Your task to perform on an android device: turn off location history Image 0: 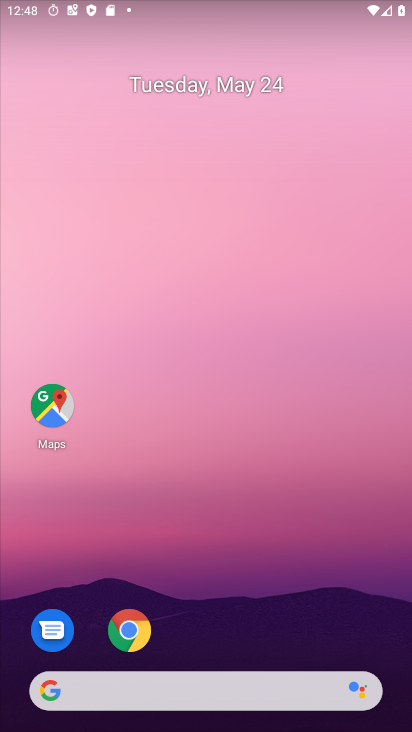
Step 0: click (53, 405)
Your task to perform on an android device: turn off location history Image 1: 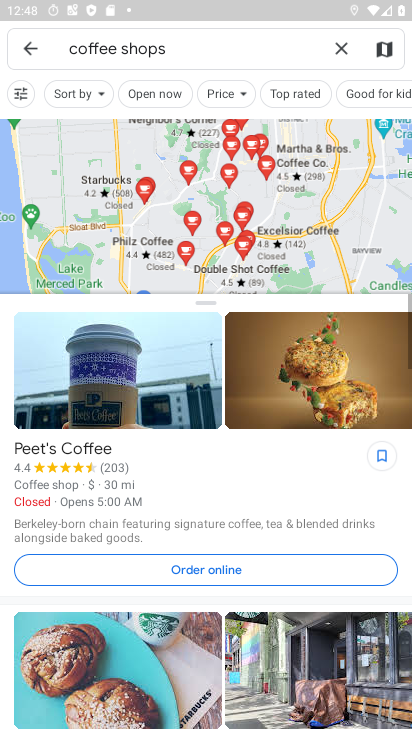
Step 1: click (343, 51)
Your task to perform on an android device: turn off location history Image 2: 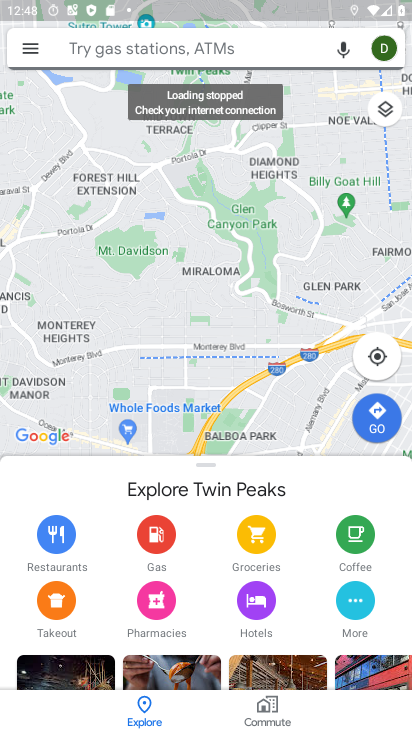
Step 2: click (29, 51)
Your task to perform on an android device: turn off location history Image 3: 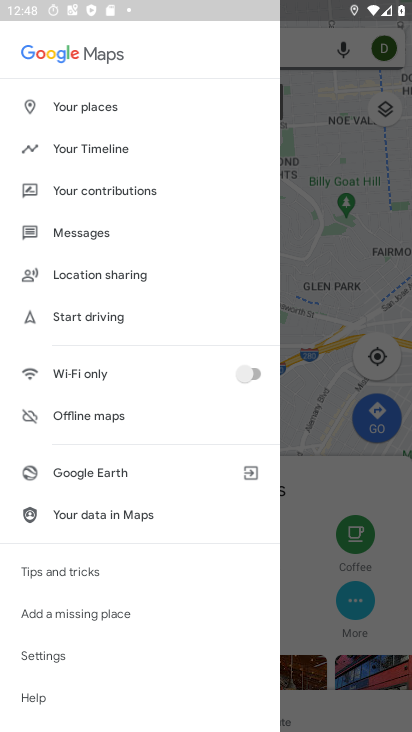
Step 3: click (99, 156)
Your task to perform on an android device: turn off location history Image 4: 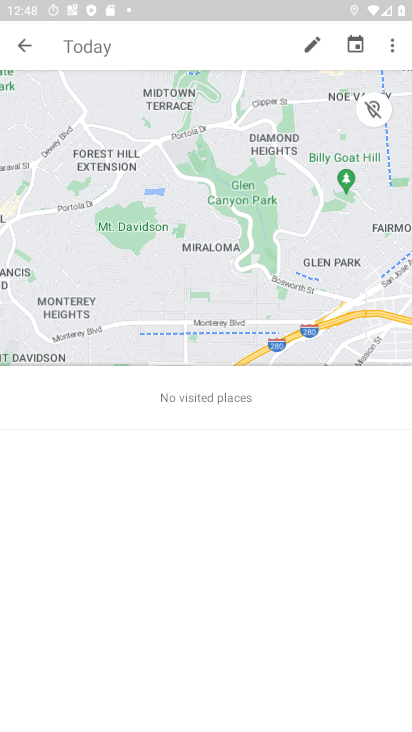
Step 4: click (394, 50)
Your task to perform on an android device: turn off location history Image 5: 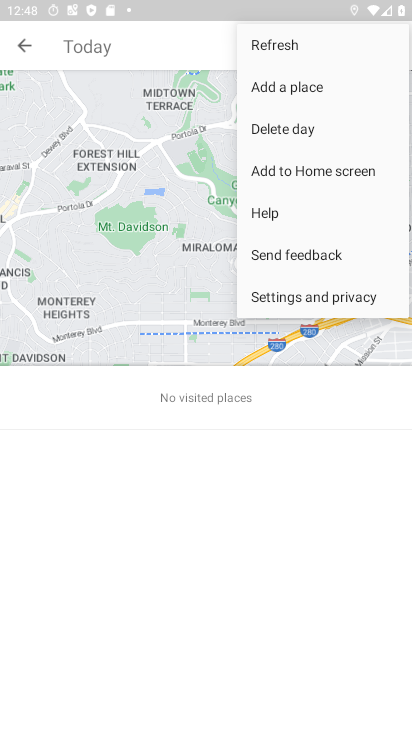
Step 5: click (312, 293)
Your task to perform on an android device: turn off location history Image 6: 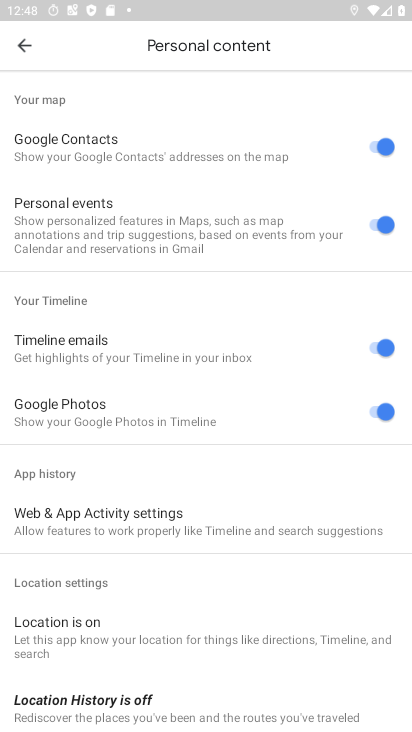
Step 6: drag from (155, 635) to (177, 339)
Your task to perform on an android device: turn off location history Image 7: 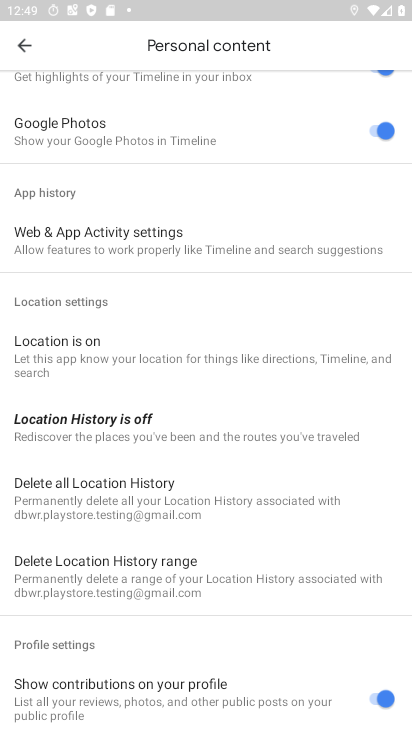
Step 7: click (138, 423)
Your task to perform on an android device: turn off location history Image 8: 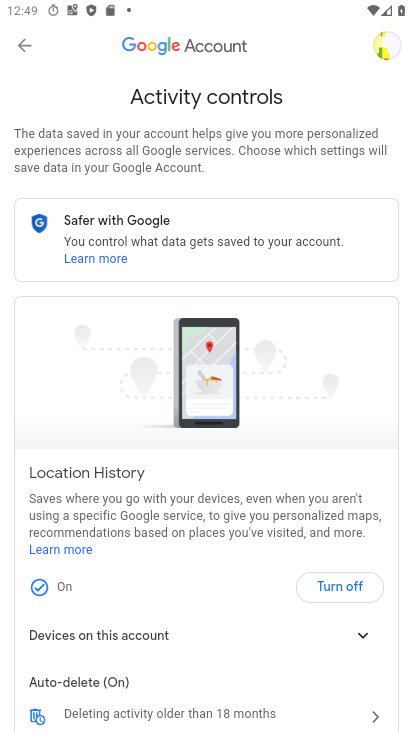
Step 8: click (326, 588)
Your task to perform on an android device: turn off location history Image 9: 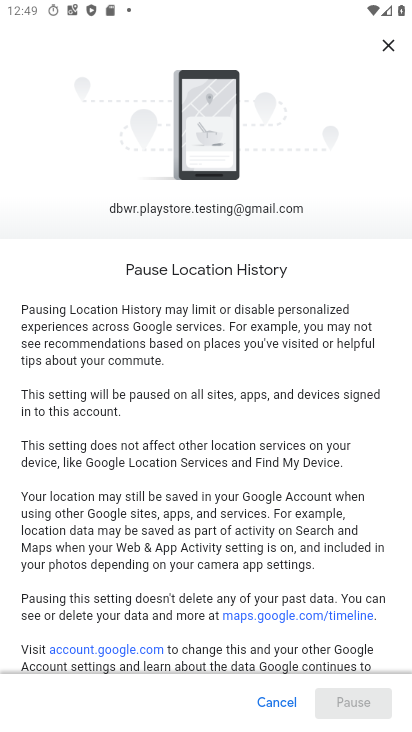
Step 9: drag from (194, 601) to (216, 22)
Your task to perform on an android device: turn off location history Image 10: 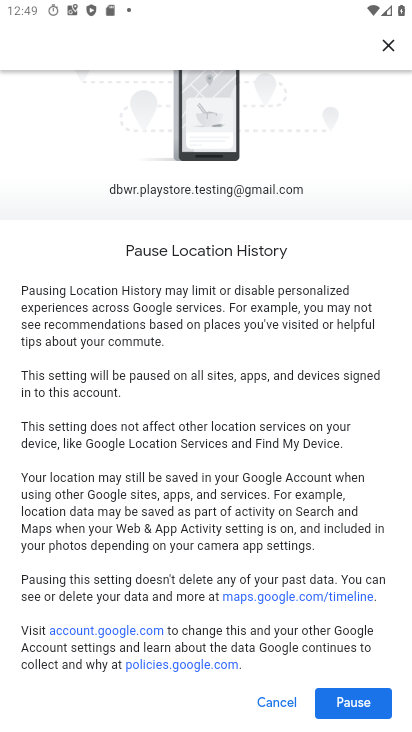
Step 10: click (352, 706)
Your task to perform on an android device: turn off location history Image 11: 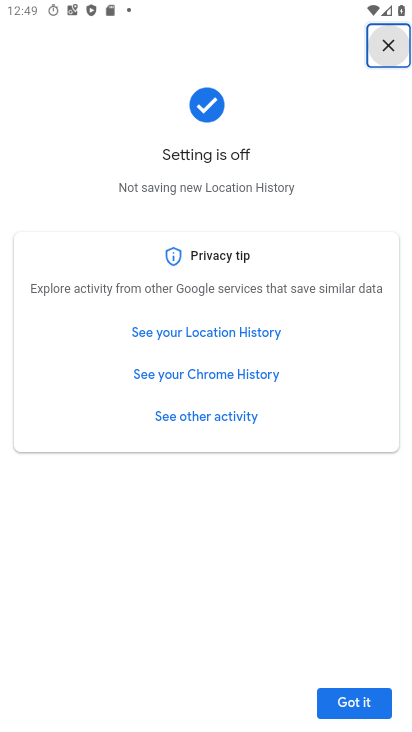
Step 11: click (352, 706)
Your task to perform on an android device: turn off location history Image 12: 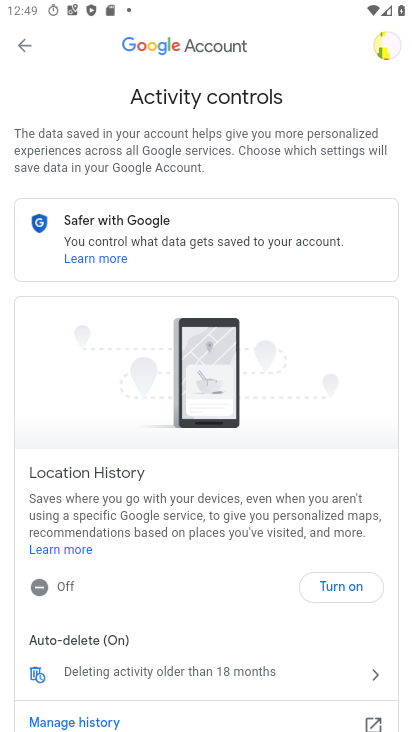
Step 12: task complete